Your task to perform on an android device: change the clock display to show seconds Image 0: 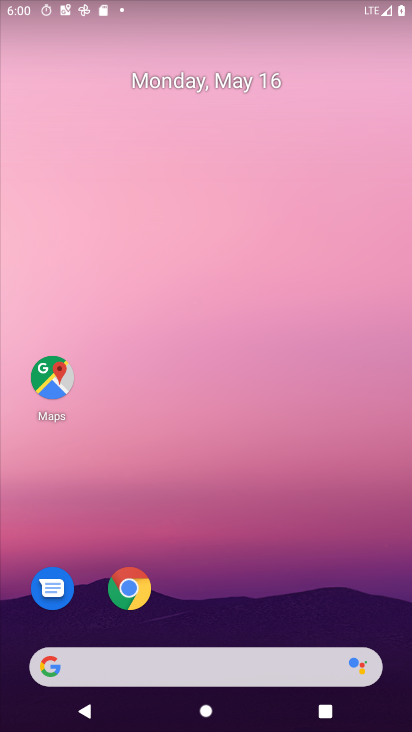
Step 0: drag from (244, 500) to (239, 26)
Your task to perform on an android device: change the clock display to show seconds Image 1: 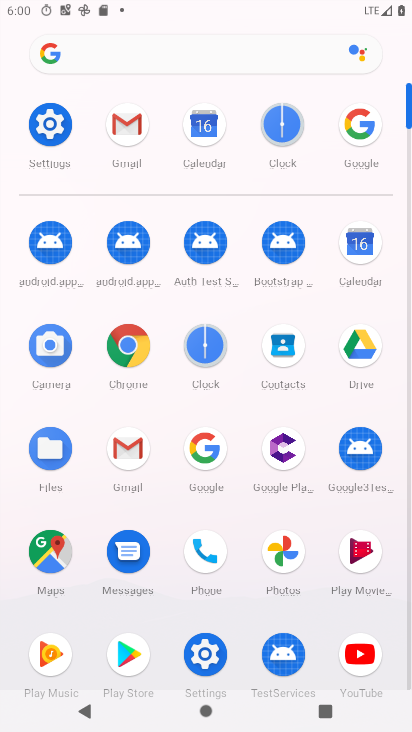
Step 1: click (273, 127)
Your task to perform on an android device: change the clock display to show seconds Image 2: 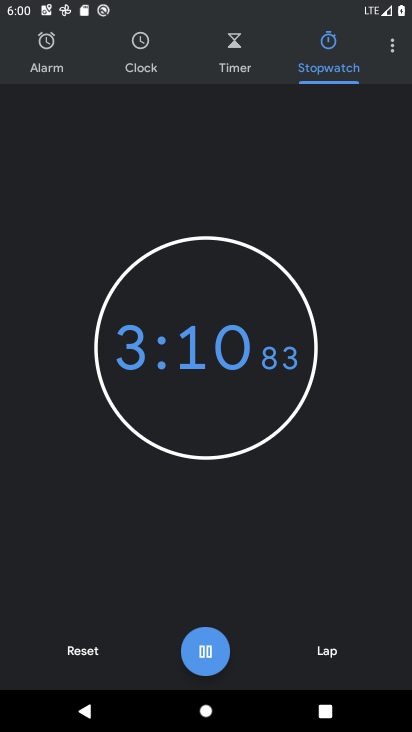
Step 2: click (388, 53)
Your task to perform on an android device: change the clock display to show seconds Image 3: 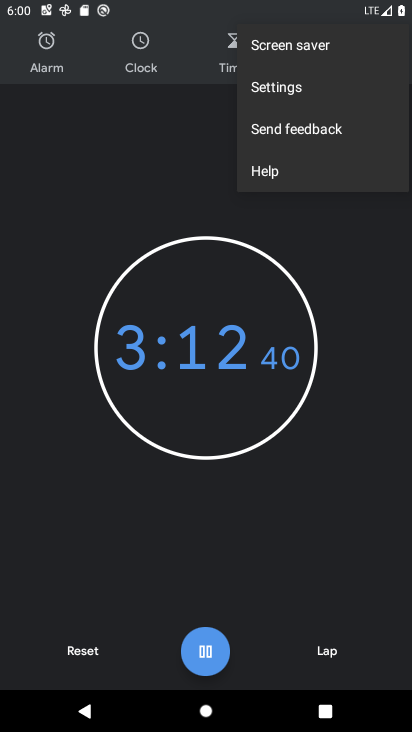
Step 3: click (303, 100)
Your task to perform on an android device: change the clock display to show seconds Image 4: 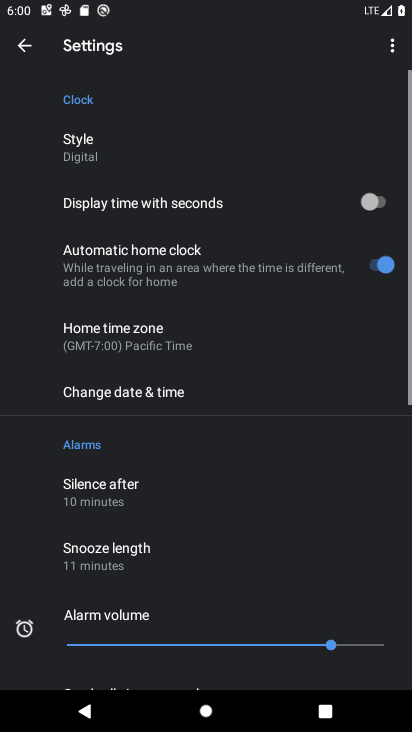
Step 4: click (371, 198)
Your task to perform on an android device: change the clock display to show seconds Image 5: 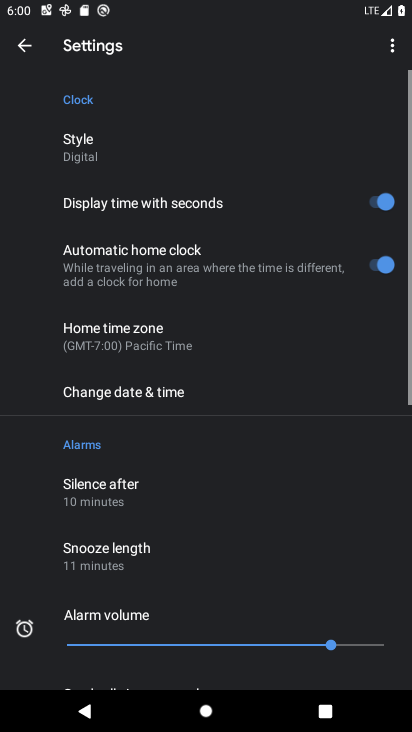
Step 5: task complete